Your task to perform on an android device: add a contact Image 0: 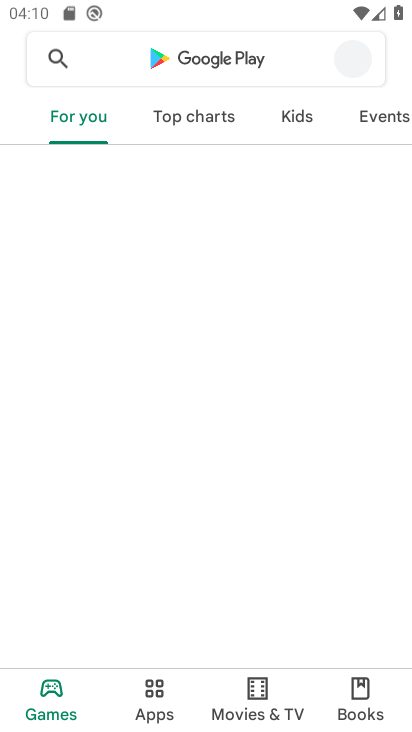
Step 0: press home button
Your task to perform on an android device: add a contact Image 1: 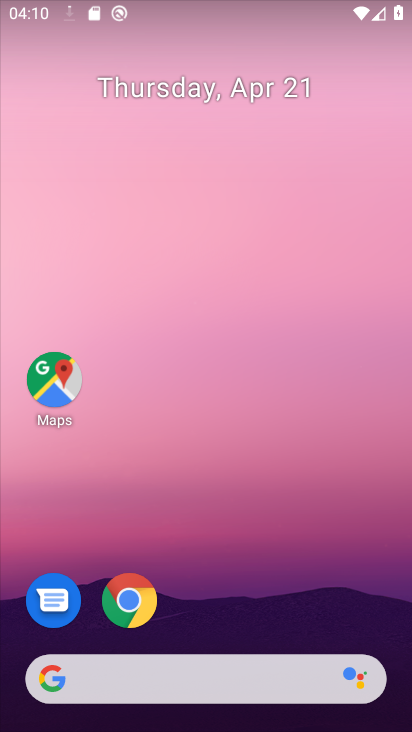
Step 1: drag from (335, 592) to (336, 0)
Your task to perform on an android device: add a contact Image 2: 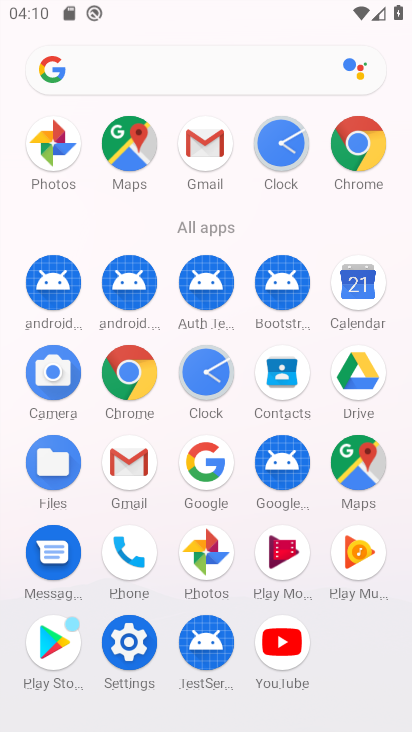
Step 2: click (282, 381)
Your task to perform on an android device: add a contact Image 3: 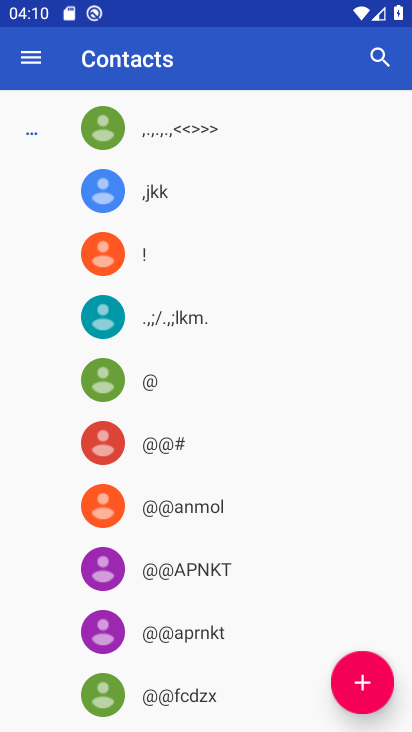
Step 3: click (353, 695)
Your task to perform on an android device: add a contact Image 4: 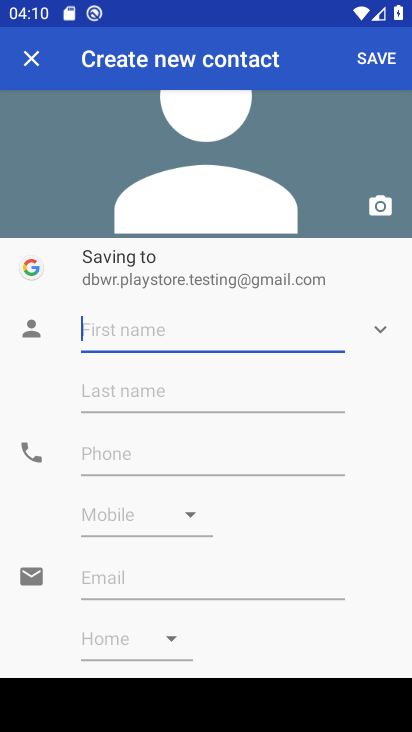
Step 4: type "heena"
Your task to perform on an android device: add a contact Image 5: 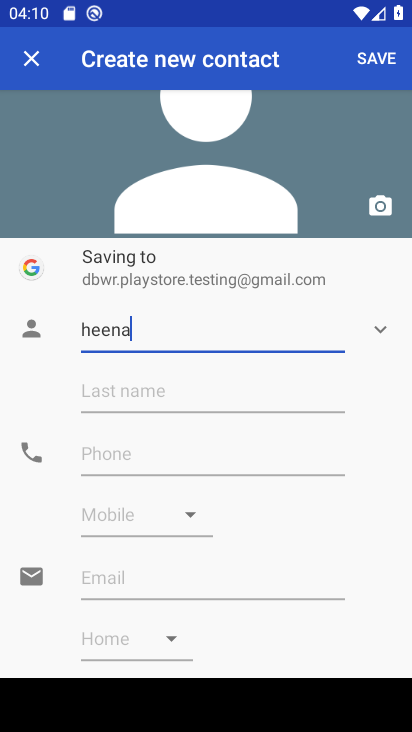
Step 5: click (198, 462)
Your task to perform on an android device: add a contact Image 6: 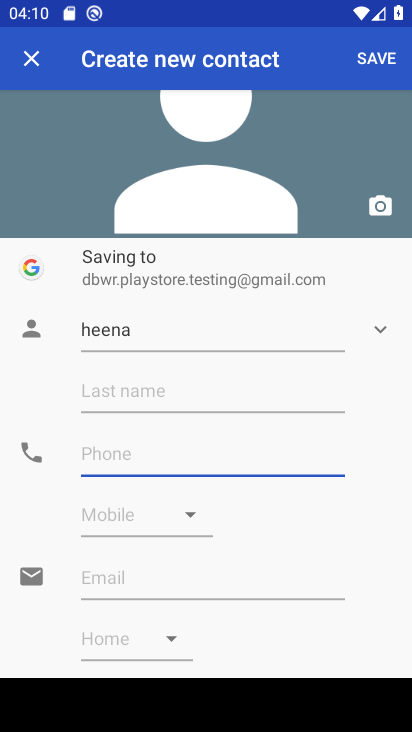
Step 6: type "787655433"
Your task to perform on an android device: add a contact Image 7: 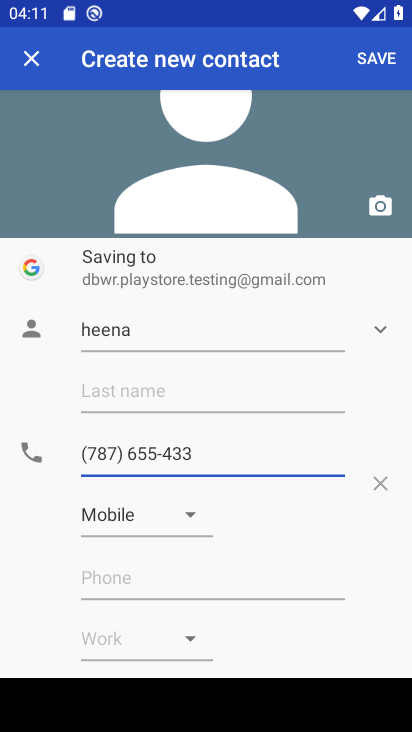
Step 7: click (372, 65)
Your task to perform on an android device: add a contact Image 8: 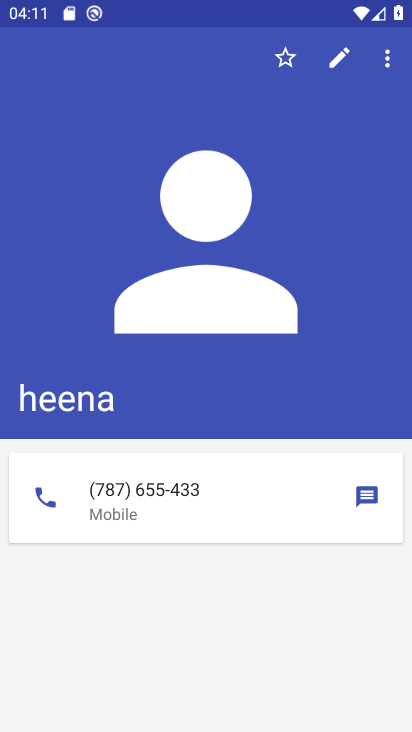
Step 8: task complete